Your task to perform on an android device: move an email to a new category in the gmail app Image 0: 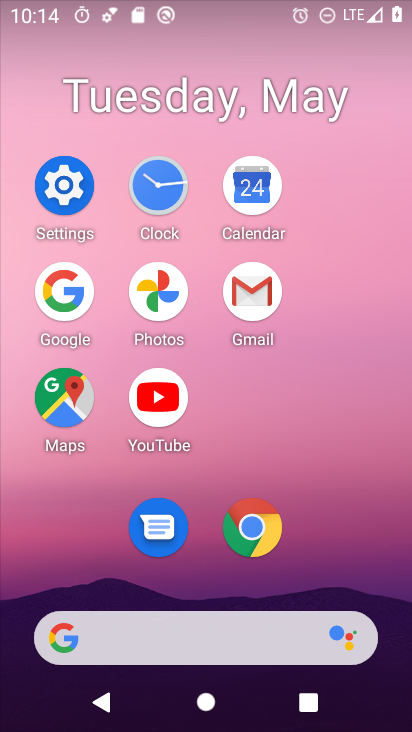
Step 0: click (249, 305)
Your task to perform on an android device: move an email to a new category in the gmail app Image 1: 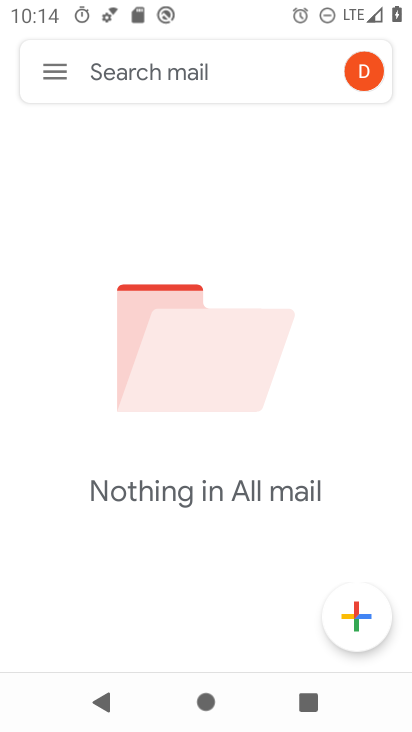
Step 1: task complete